Your task to perform on an android device: Open calendar and show me the second week of next month Image 0: 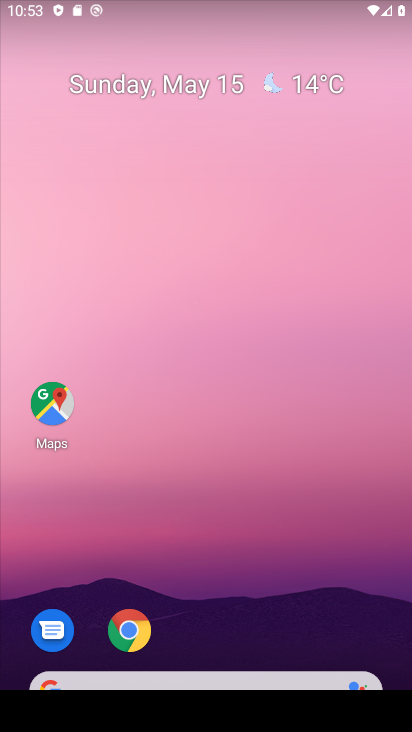
Step 0: drag from (24, 501) to (282, 144)
Your task to perform on an android device: Open calendar and show me the second week of next month Image 1: 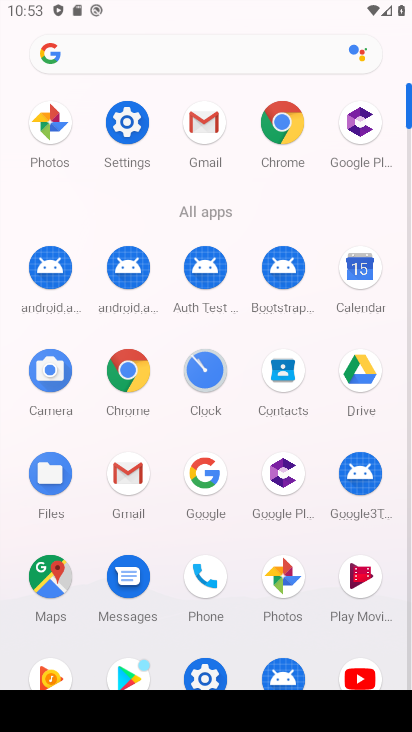
Step 1: click (355, 281)
Your task to perform on an android device: Open calendar and show me the second week of next month Image 2: 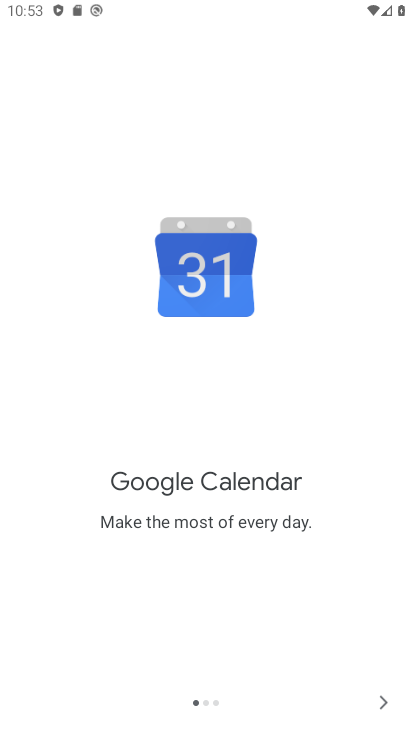
Step 2: click (382, 707)
Your task to perform on an android device: Open calendar and show me the second week of next month Image 3: 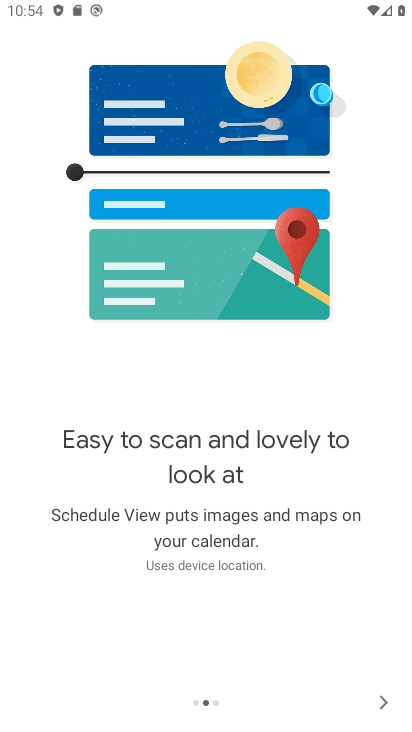
Step 3: click (383, 705)
Your task to perform on an android device: Open calendar and show me the second week of next month Image 4: 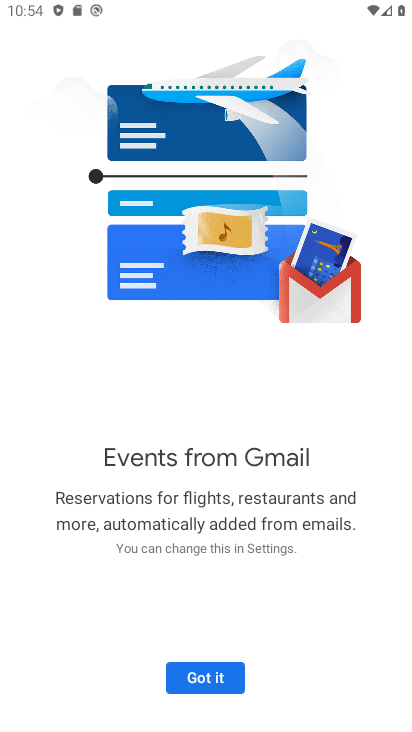
Step 4: click (180, 686)
Your task to perform on an android device: Open calendar and show me the second week of next month Image 5: 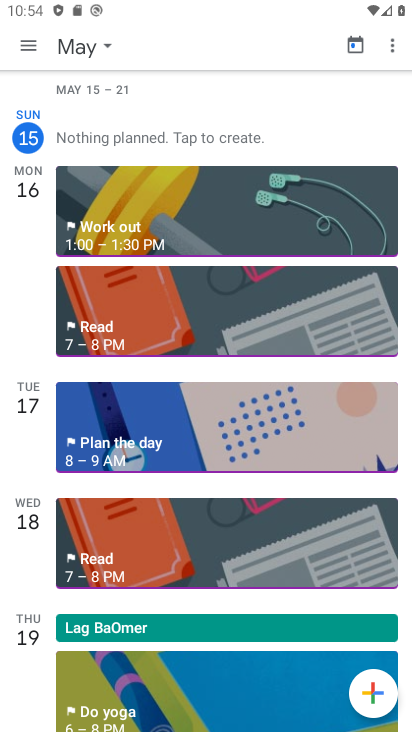
Step 5: click (90, 50)
Your task to perform on an android device: Open calendar and show me the second week of next month Image 6: 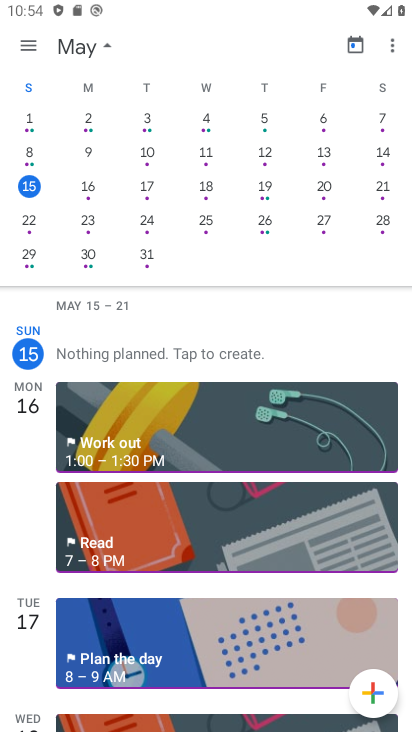
Step 6: drag from (299, 198) to (0, 203)
Your task to perform on an android device: Open calendar and show me the second week of next month Image 7: 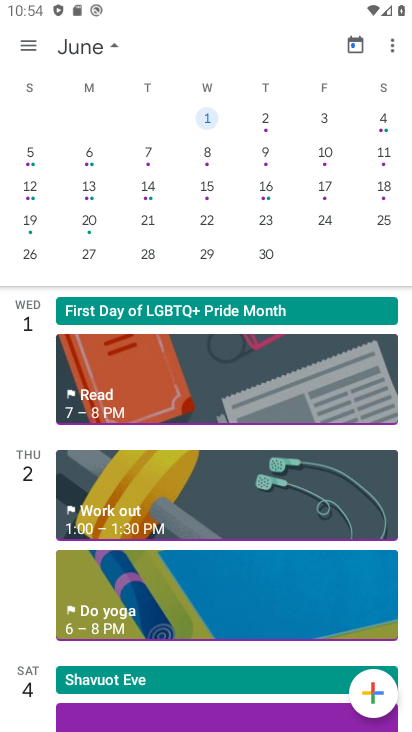
Step 7: drag from (290, 212) to (70, 134)
Your task to perform on an android device: Open calendar and show me the second week of next month Image 8: 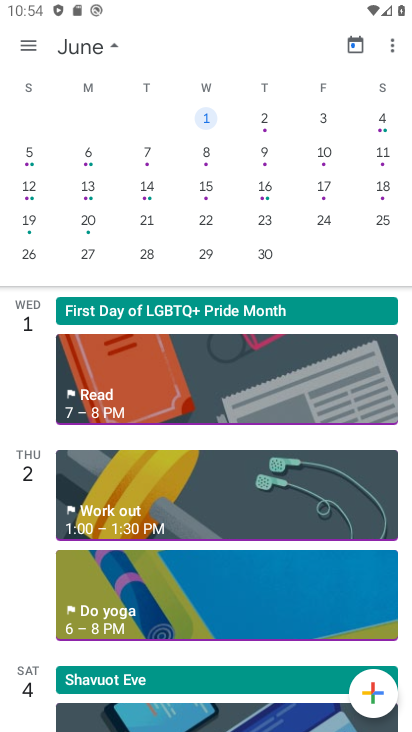
Step 8: click (78, 155)
Your task to perform on an android device: Open calendar and show me the second week of next month Image 9: 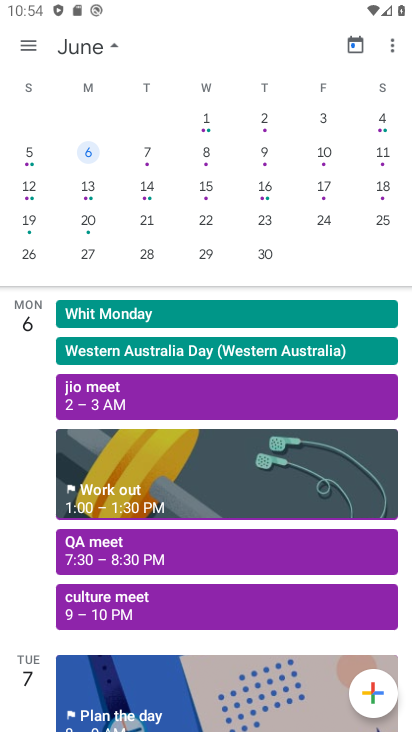
Step 9: task complete